Your task to perform on an android device: Search for pizza restaurants on Maps Image 0: 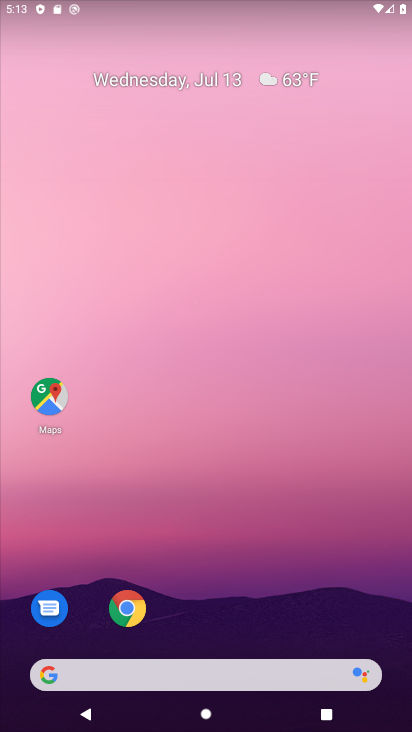
Step 0: drag from (306, 585) to (128, 33)
Your task to perform on an android device: Search for pizza restaurants on Maps Image 1: 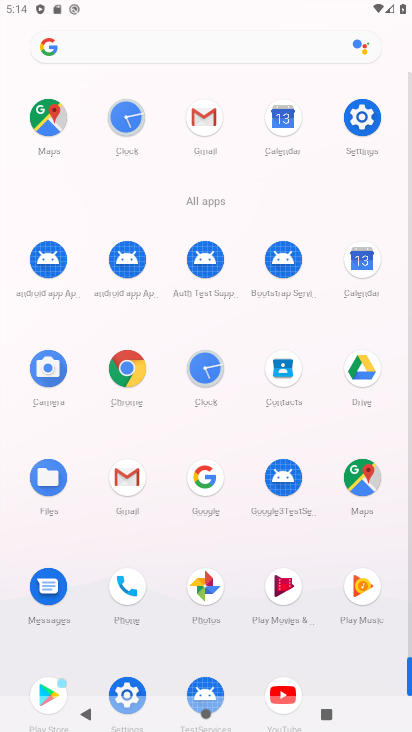
Step 1: drag from (351, 658) to (327, 238)
Your task to perform on an android device: Search for pizza restaurants on Maps Image 2: 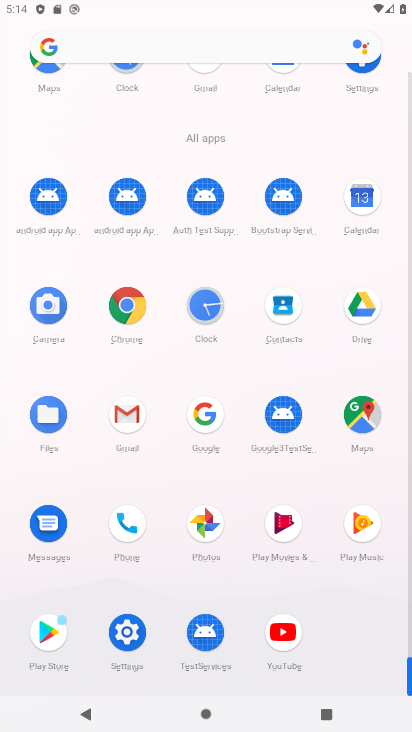
Step 2: click (347, 428)
Your task to perform on an android device: Search for pizza restaurants on Maps Image 3: 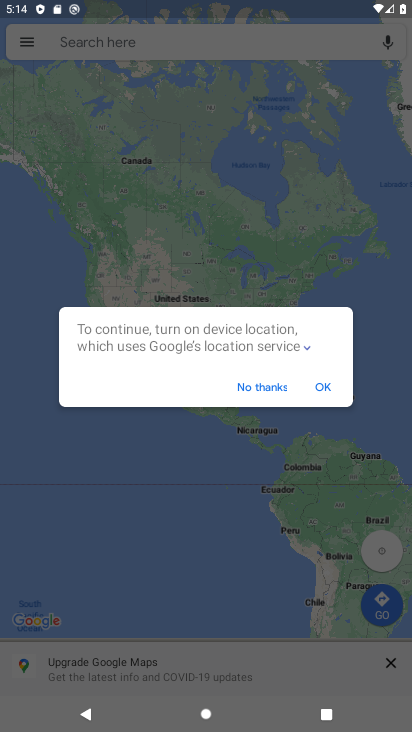
Step 3: click (280, 393)
Your task to perform on an android device: Search for pizza restaurants on Maps Image 4: 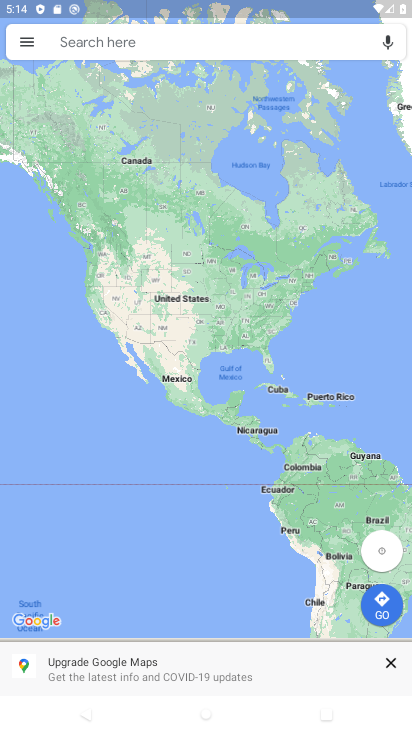
Step 4: click (166, 42)
Your task to perform on an android device: Search for pizza restaurants on Maps Image 5: 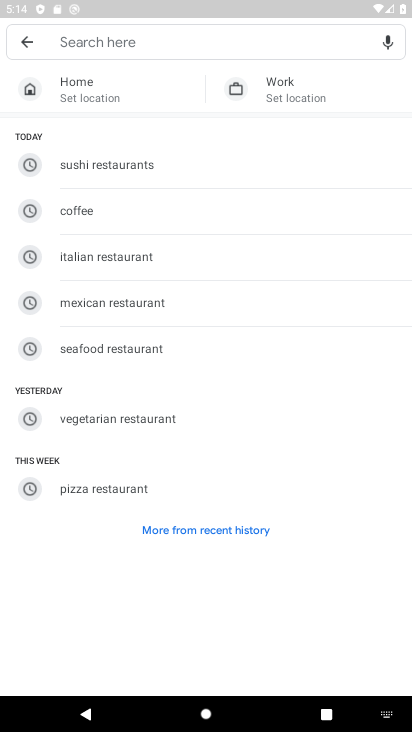
Step 5: click (124, 497)
Your task to perform on an android device: Search for pizza restaurants on Maps Image 6: 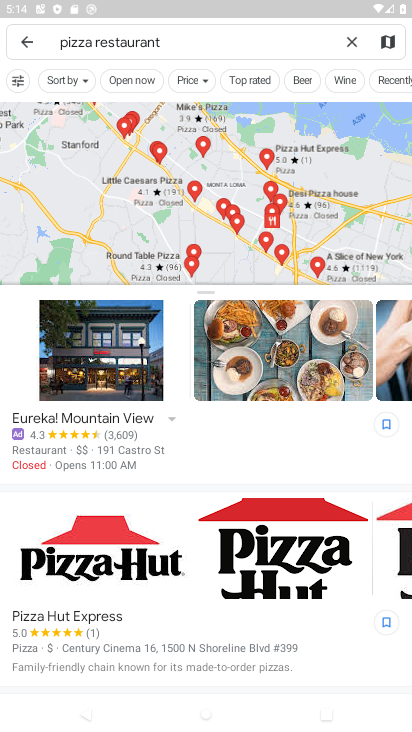
Step 6: task complete